Your task to perform on an android device: Open Google Maps and go to "Timeline" Image 0: 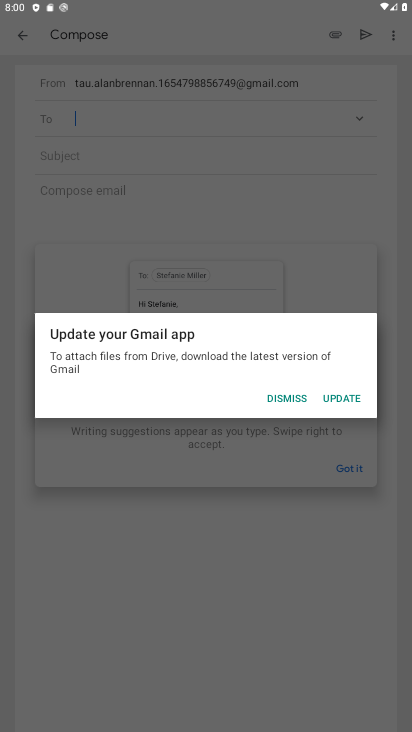
Step 0: press home button
Your task to perform on an android device: Open Google Maps and go to "Timeline" Image 1: 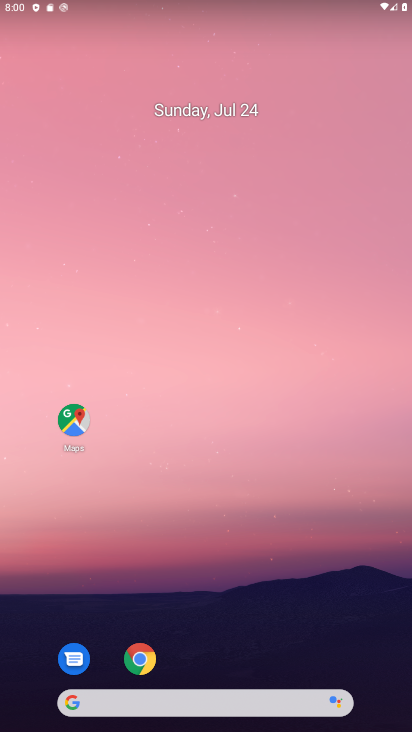
Step 1: click (65, 408)
Your task to perform on an android device: Open Google Maps and go to "Timeline" Image 2: 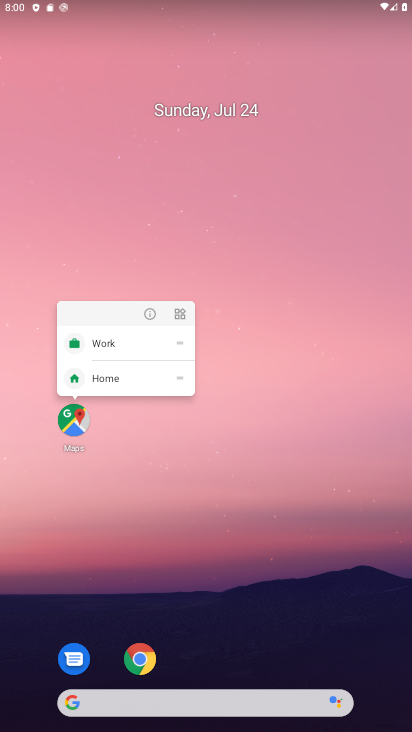
Step 2: click (74, 429)
Your task to perform on an android device: Open Google Maps and go to "Timeline" Image 3: 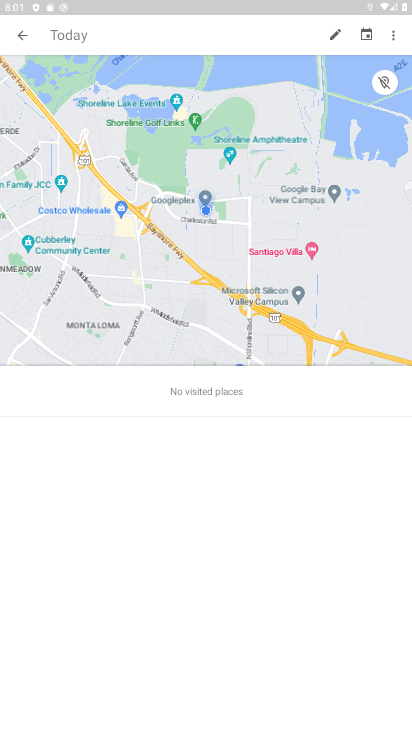
Step 3: task complete